Your task to perform on an android device: turn on bluetooth scan Image 0: 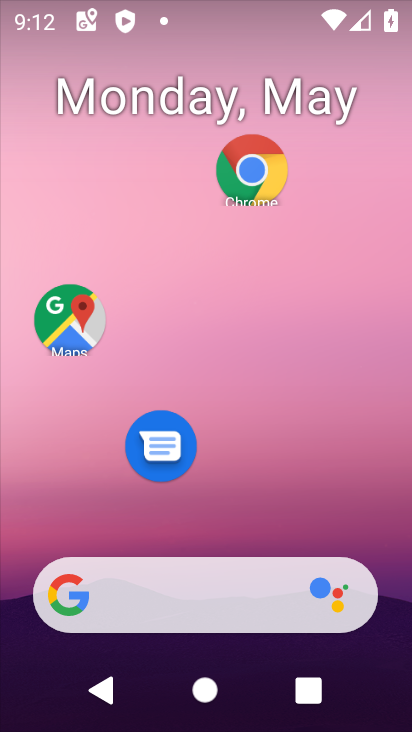
Step 0: press home button
Your task to perform on an android device: turn on bluetooth scan Image 1: 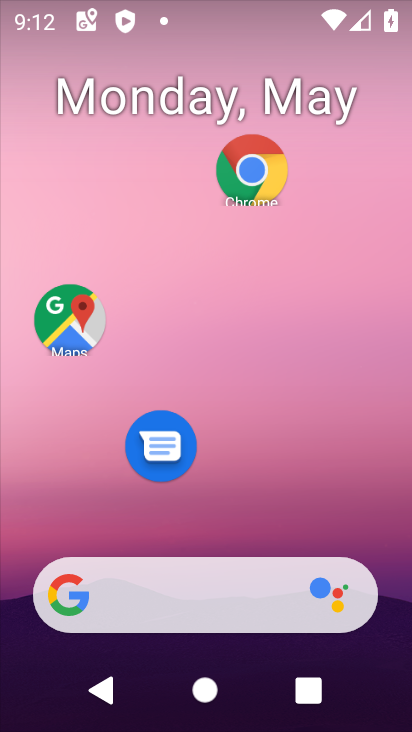
Step 1: drag from (248, 532) to (250, 17)
Your task to perform on an android device: turn on bluetooth scan Image 2: 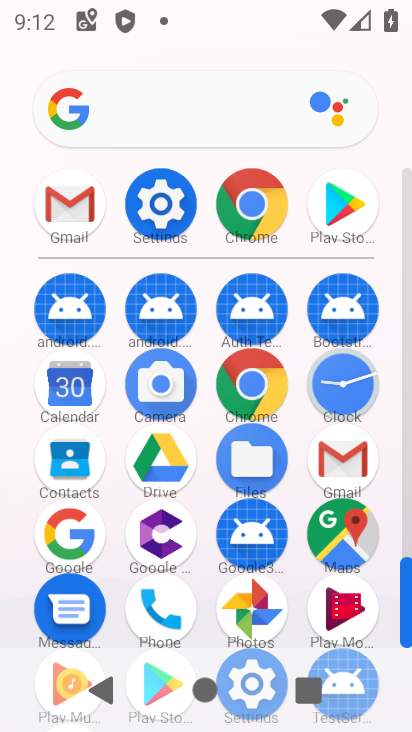
Step 2: click (71, 196)
Your task to perform on an android device: turn on bluetooth scan Image 3: 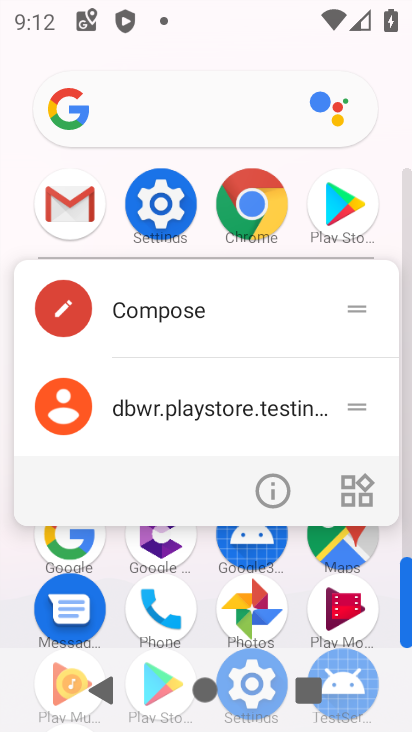
Step 3: drag from (201, 585) to (200, 503)
Your task to perform on an android device: turn on bluetooth scan Image 4: 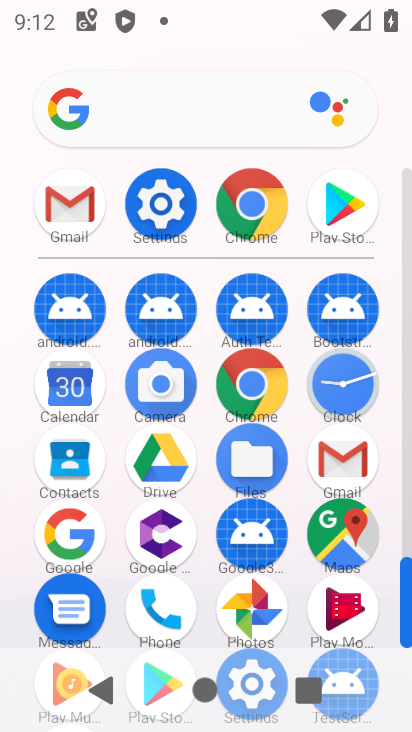
Step 4: drag from (204, 562) to (227, 206)
Your task to perform on an android device: turn on bluetooth scan Image 5: 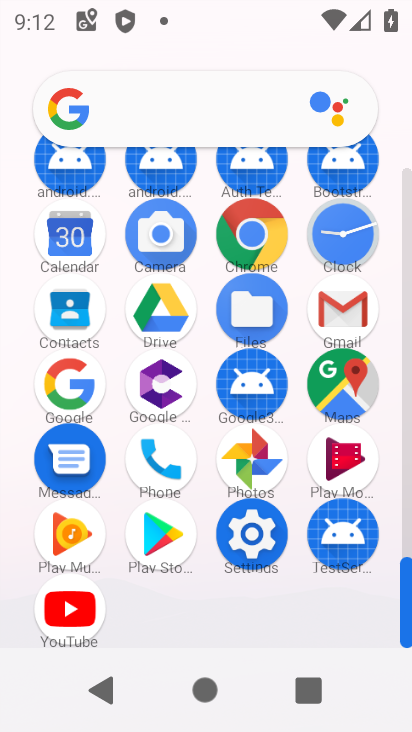
Step 5: click (250, 522)
Your task to perform on an android device: turn on bluetooth scan Image 6: 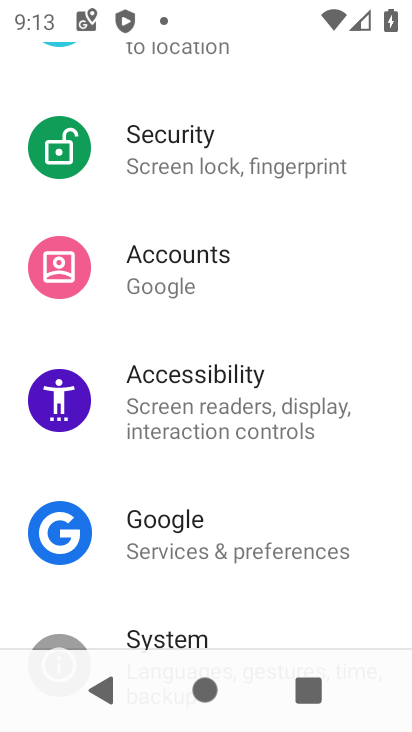
Step 6: drag from (220, 86) to (232, 405)
Your task to perform on an android device: turn on bluetooth scan Image 7: 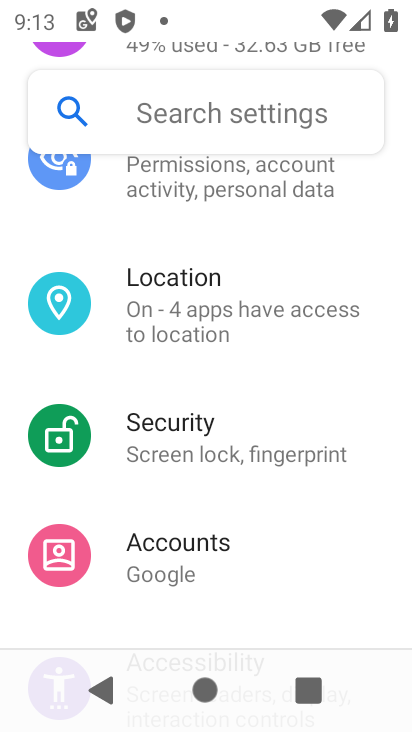
Step 7: click (220, 287)
Your task to perform on an android device: turn on bluetooth scan Image 8: 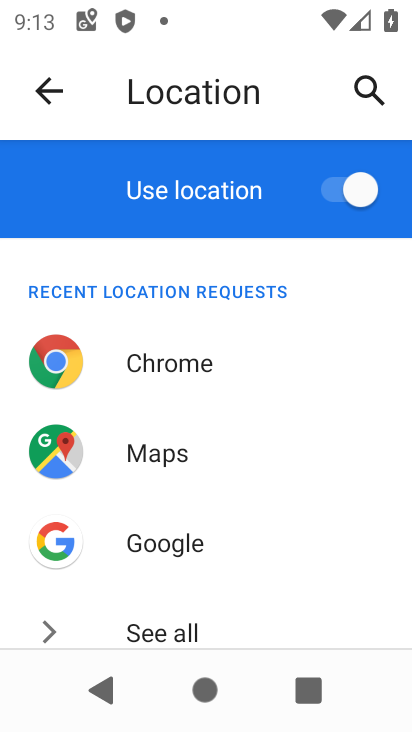
Step 8: drag from (225, 595) to (233, 180)
Your task to perform on an android device: turn on bluetooth scan Image 9: 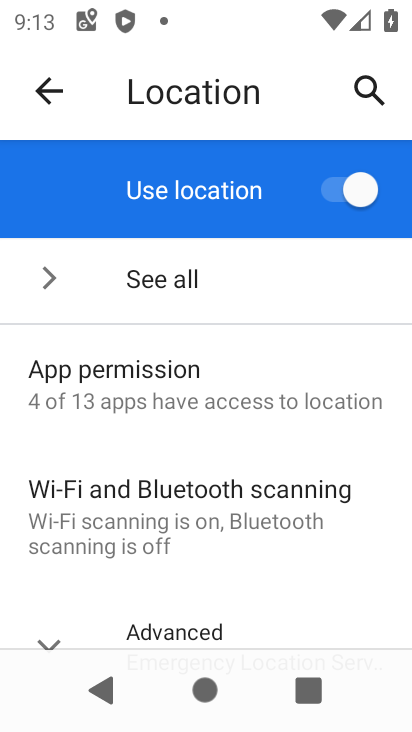
Step 9: click (235, 505)
Your task to perform on an android device: turn on bluetooth scan Image 10: 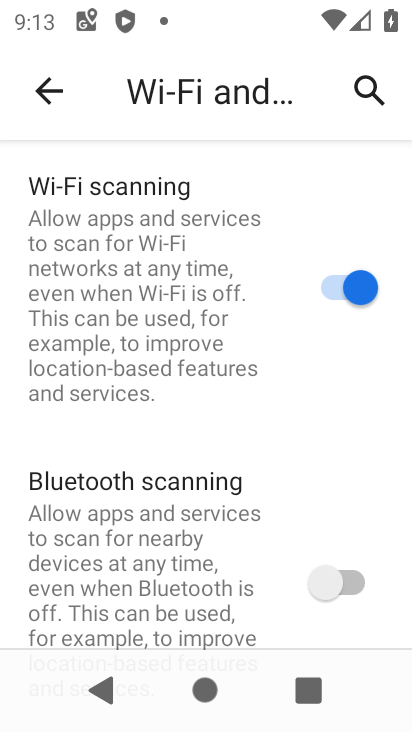
Step 10: click (336, 577)
Your task to perform on an android device: turn on bluetooth scan Image 11: 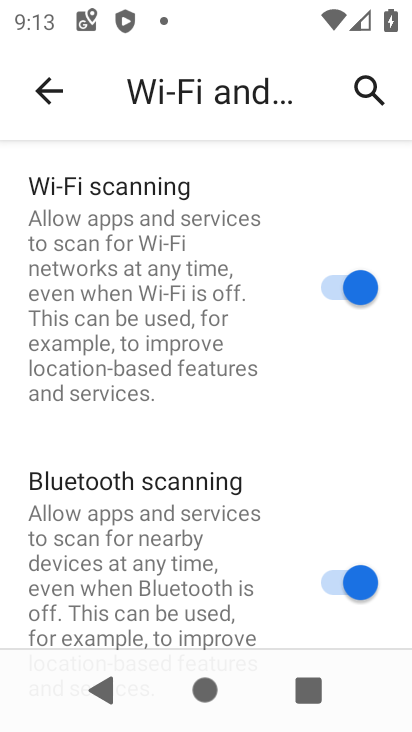
Step 11: task complete